Your task to perform on an android device: Open sound settings Image 0: 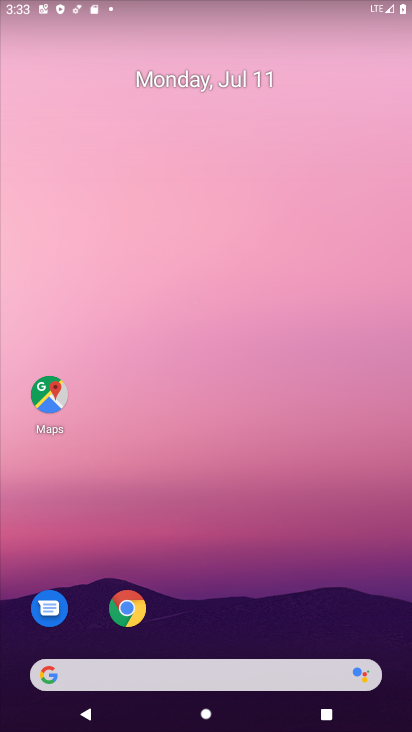
Step 0: drag from (231, 7) to (201, 606)
Your task to perform on an android device: Open sound settings Image 1: 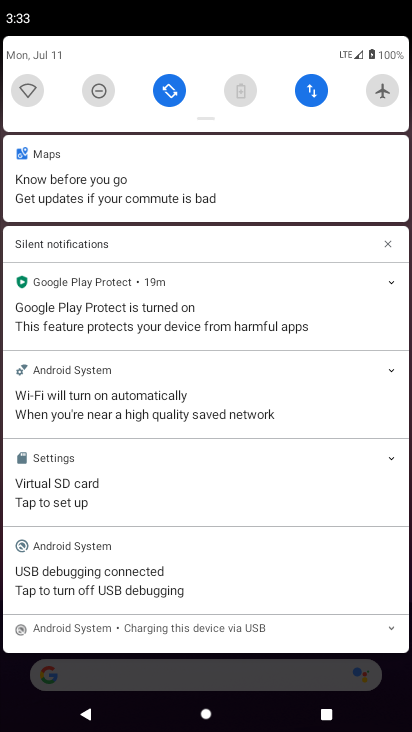
Step 1: drag from (208, 63) to (188, 660)
Your task to perform on an android device: Open sound settings Image 2: 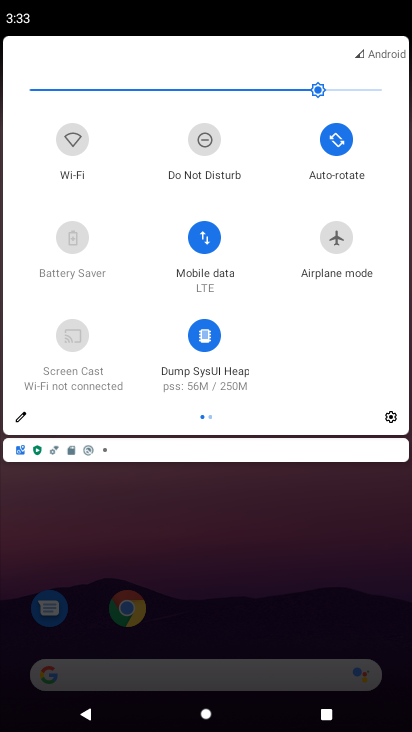
Step 2: click (391, 415)
Your task to perform on an android device: Open sound settings Image 3: 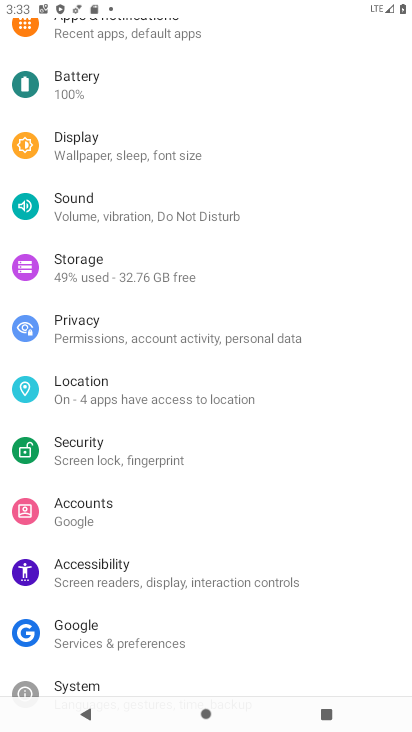
Step 3: click (91, 216)
Your task to perform on an android device: Open sound settings Image 4: 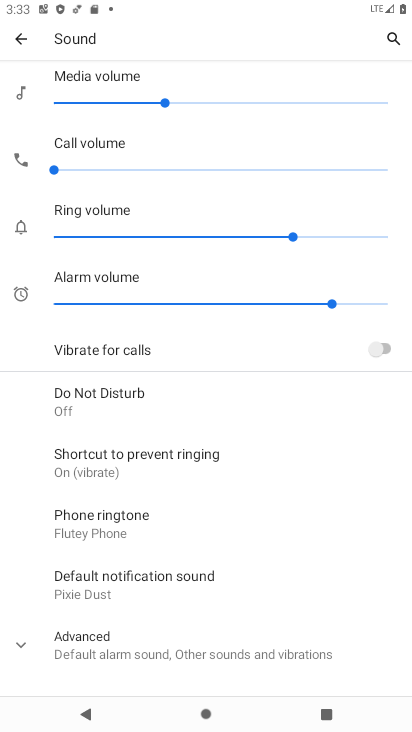
Step 4: task complete